Your task to perform on an android device: turn pop-ups off in chrome Image 0: 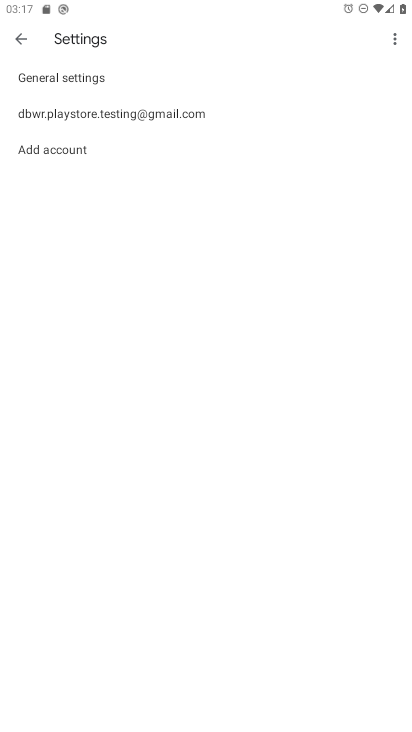
Step 0: press home button
Your task to perform on an android device: turn pop-ups off in chrome Image 1: 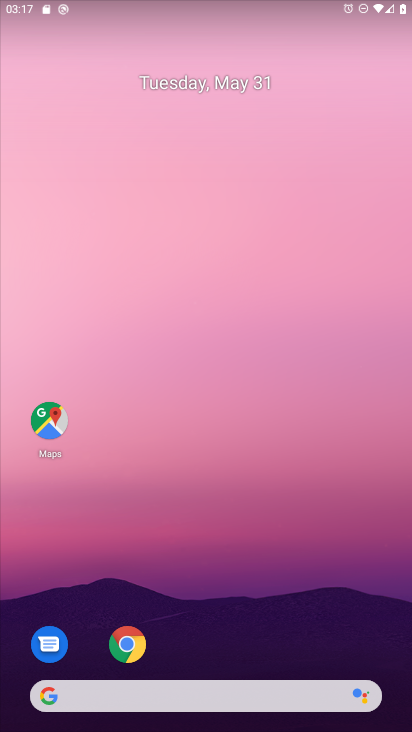
Step 1: drag from (265, 581) to (315, 169)
Your task to perform on an android device: turn pop-ups off in chrome Image 2: 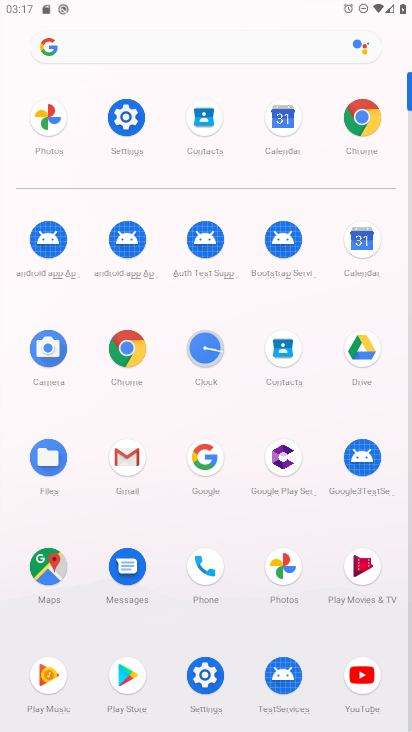
Step 2: click (128, 343)
Your task to perform on an android device: turn pop-ups off in chrome Image 3: 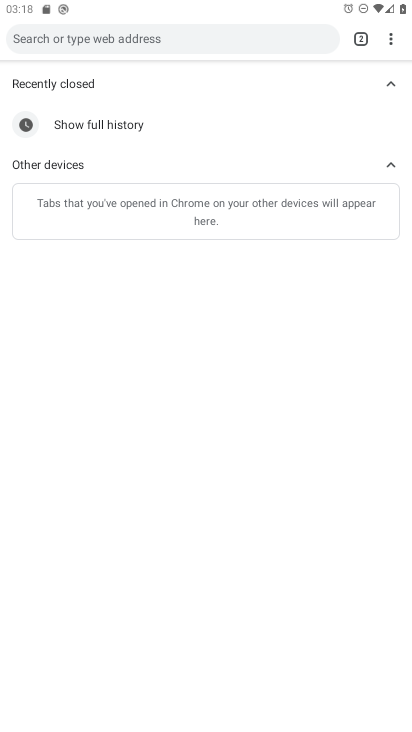
Step 3: click (395, 36)
Your task to perform on an android device: turn pop-ups off in chrome Image 4: 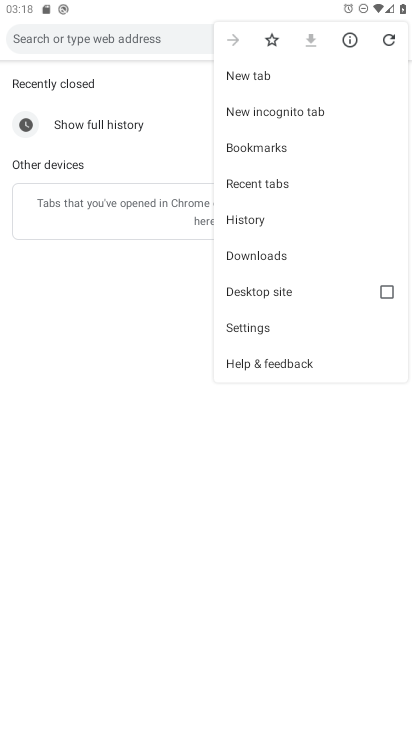
Step 4: click (283, 322)
Your task to perform on an android device: turn pop-ups off in chrome Image 5: 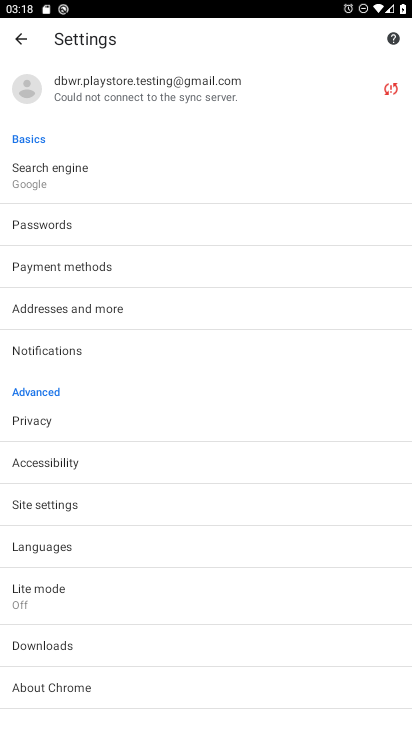
Step 5: click (74, 507)
Your task to perform on an android device: turn pop-ups off in chrome Image 6: 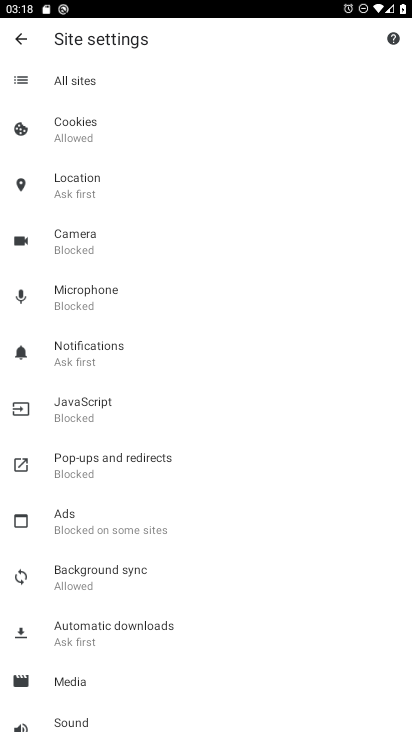
Step 6: click (112, 463)
Your task to perform on an android device: turn pop-ups off in chrome Image 7: 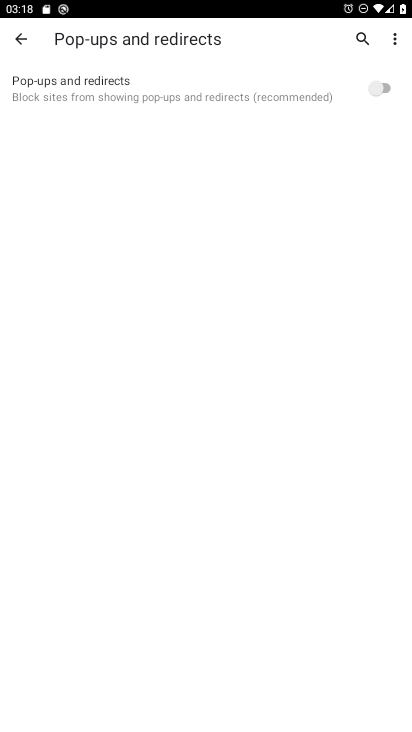
Step 7: task complete